Your task to perform on an android device: open app "Google Play Games" Image 0: 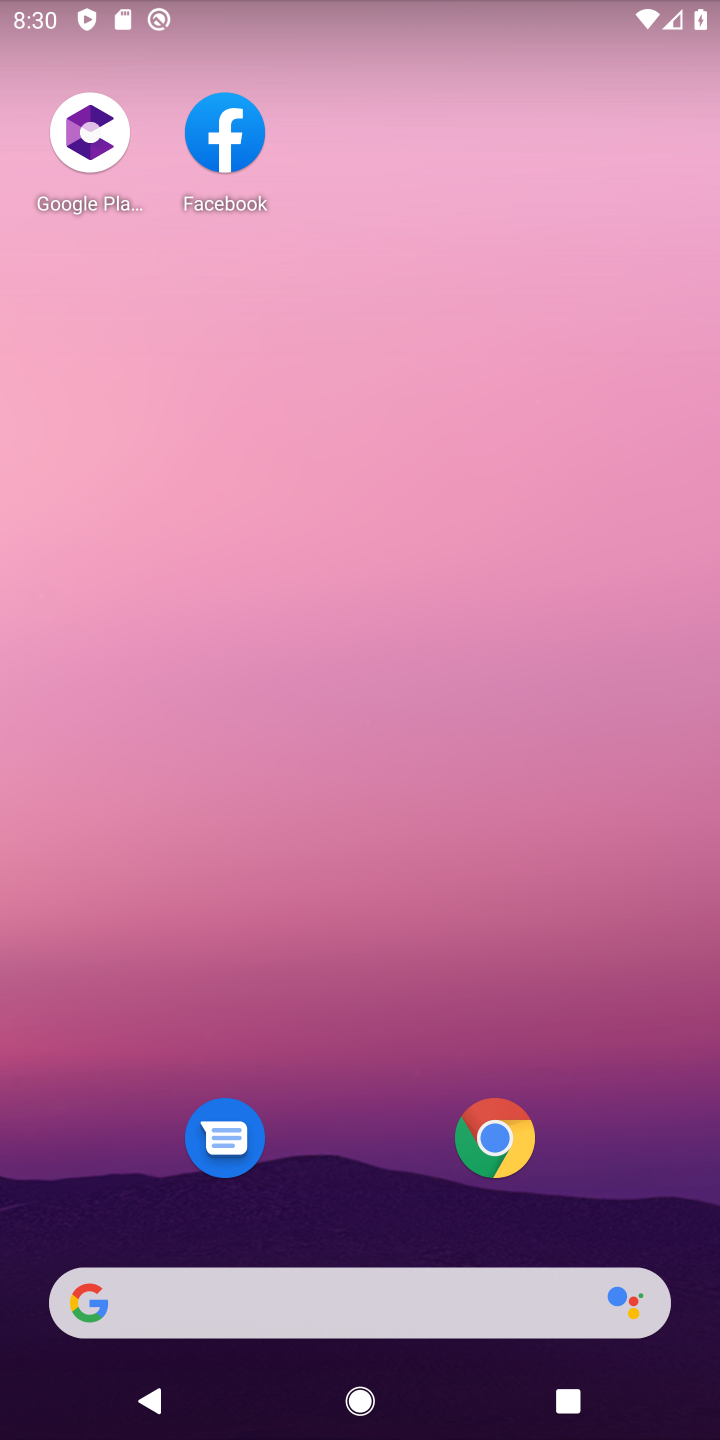
Step 0: drag from (325, 1119) to (385, 409)
Your task to perform on an android device: open app "Google Play Games" Image 1: 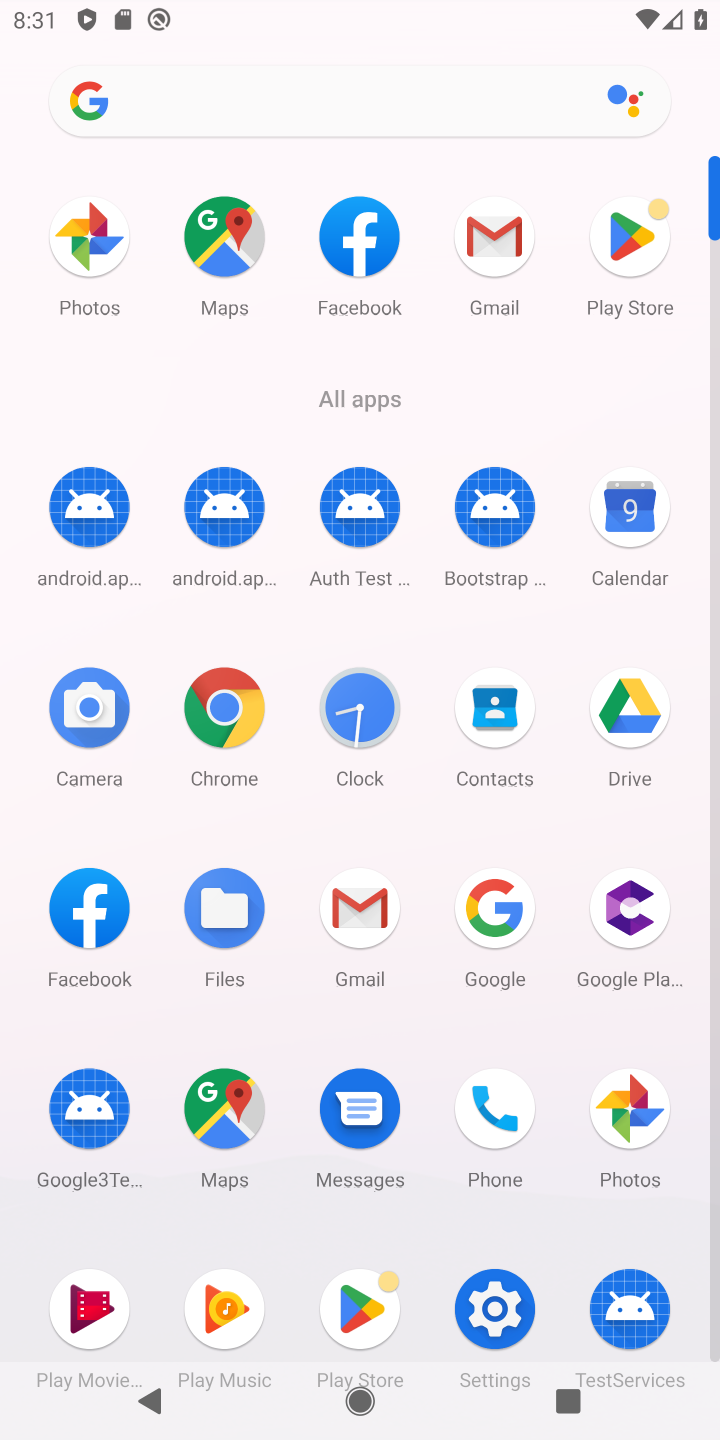
Step 1: click (607, 237)
Your task to perform on an android device: open app "Google Play Games" Image 2: 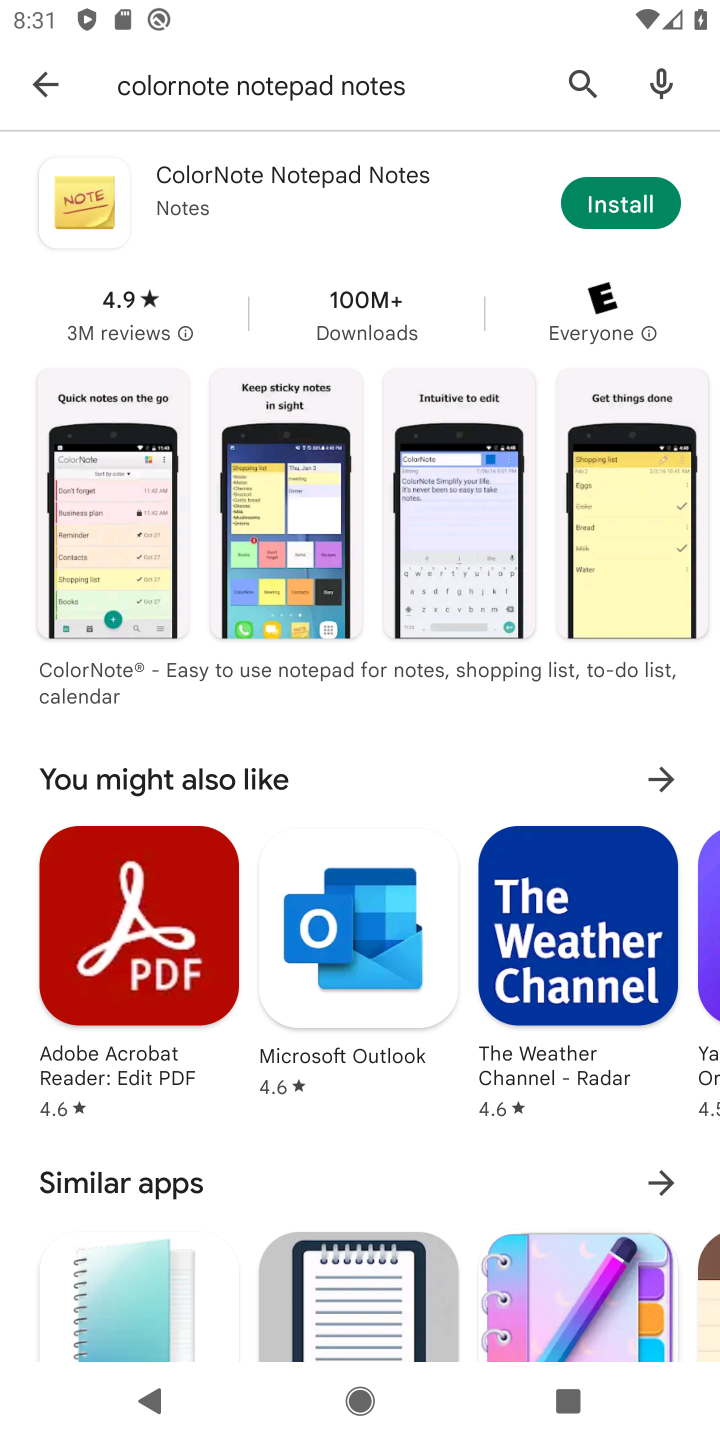
Step 2: click (556, 60)
Your task to perform on an android device: open app "Google Play Games" Image 3: 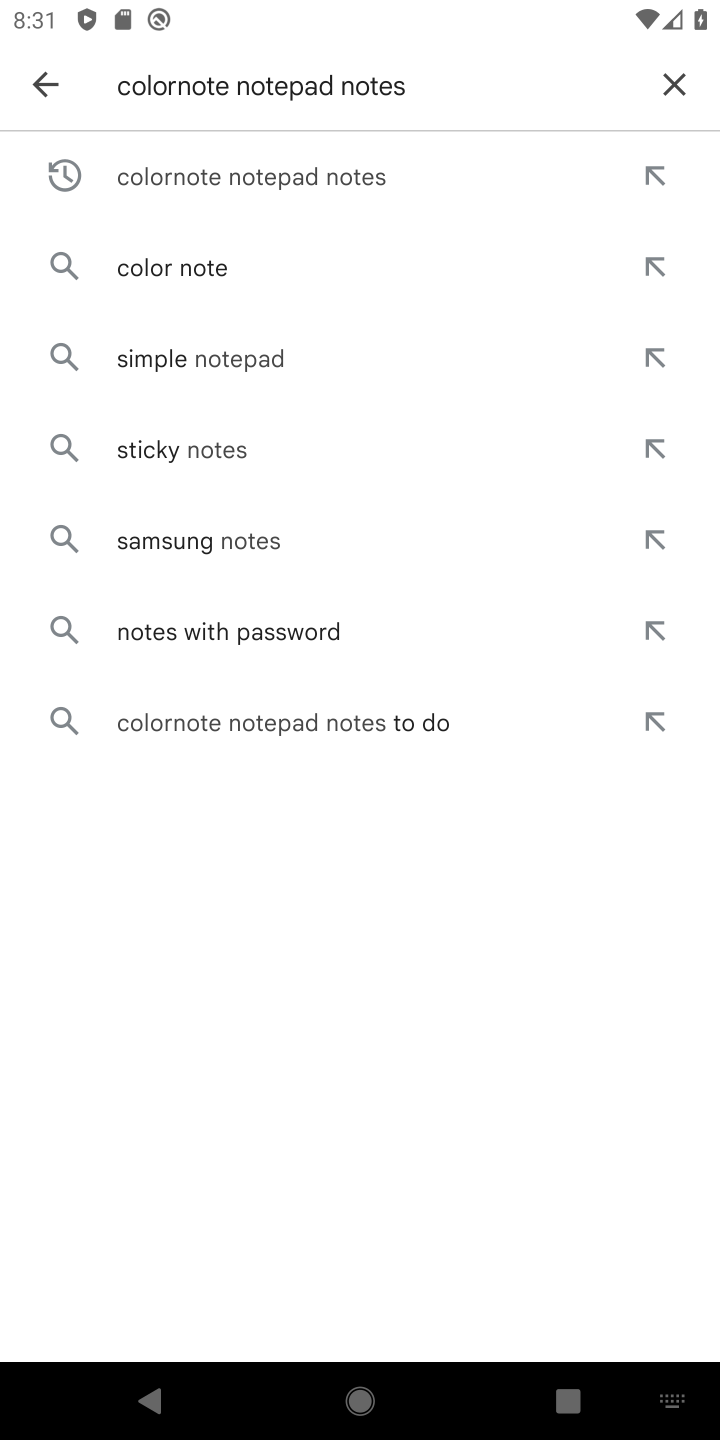
Step 3: click (675, 88)
Your task to perform on an android device: open app "Google Play Games" Image 4: 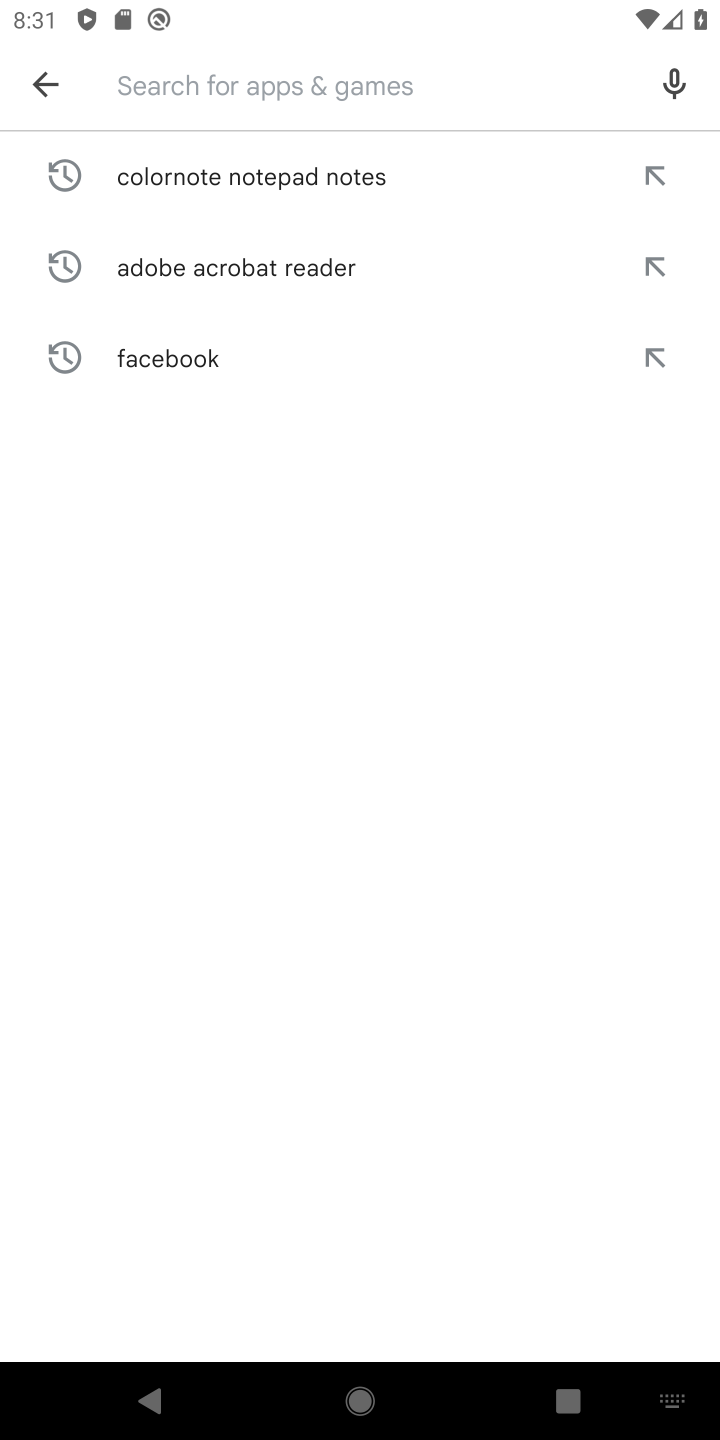
Step 4: type "Google Play Games"
Your task to perform on an android device: open app "Google Play Games" Image 5: 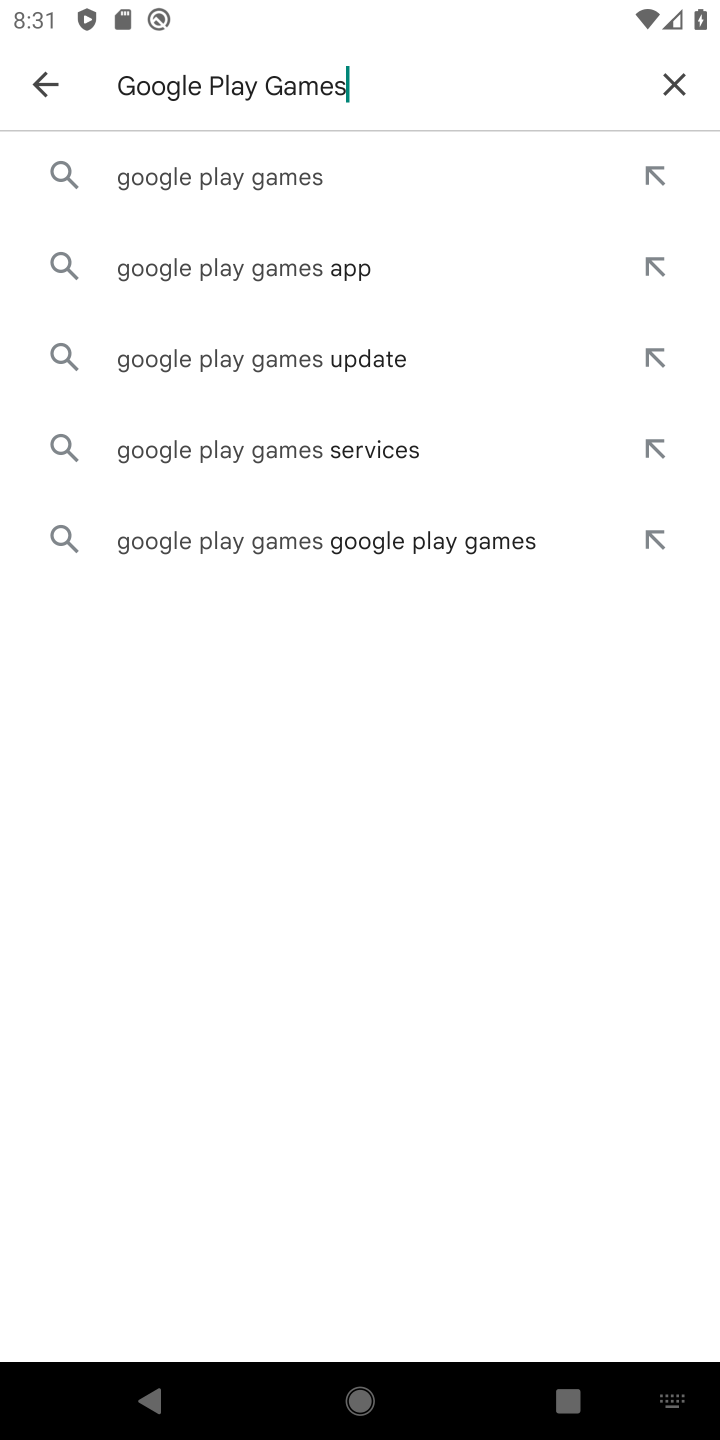
Step 5: click (279, 187)
Your task to perform on an android device: open app "Google Play Games" Image 6: 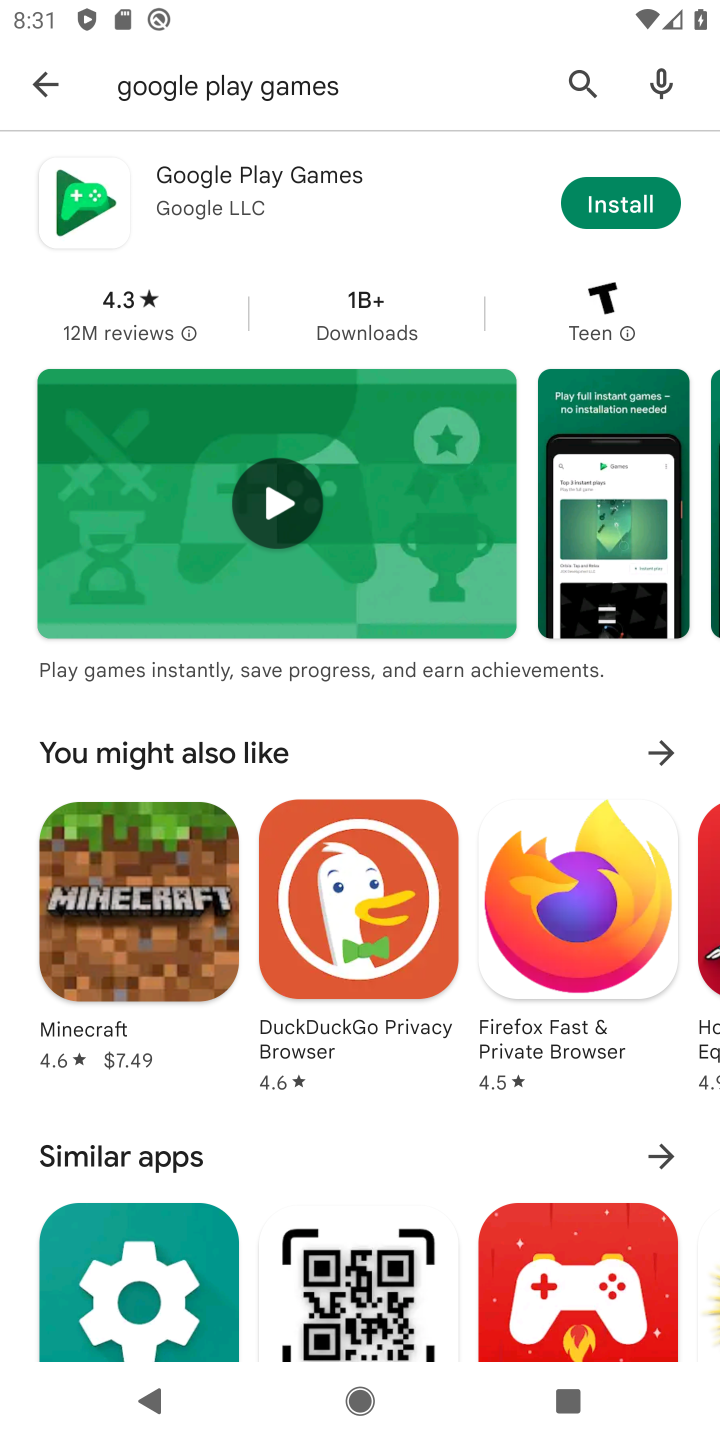
Step 6: task complete